Your task to perform on an android device: turn off location history Image 0: 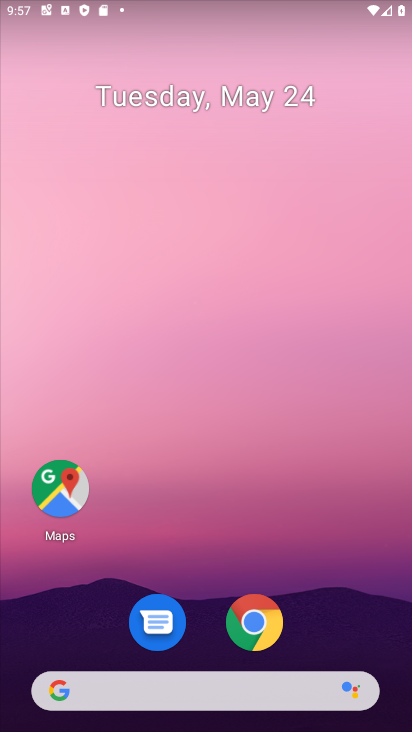
Step 0: drag from (243, 694) to (379, 98)
Your task to perform on an android device: turn off location history Image 1: 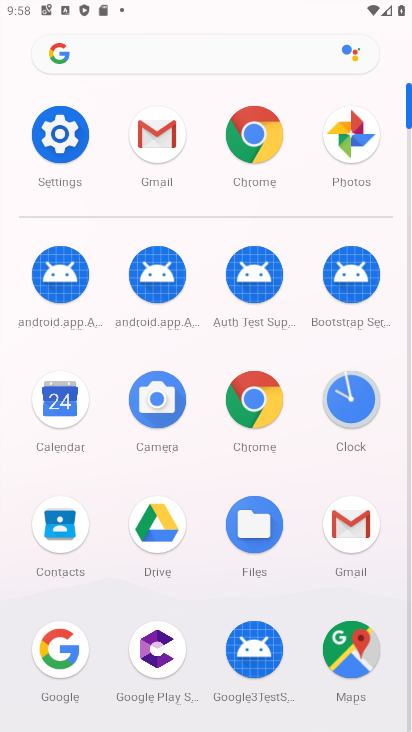
Step 1: click (77, 144)
Your task to perform on an android device: turn off location history Image 2: 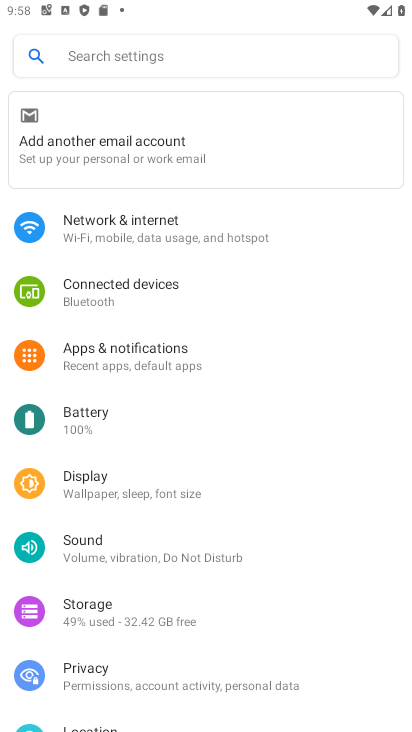
Step 2: click (146, 54)
Your task to perform on an android device: turn off location history Image 3: 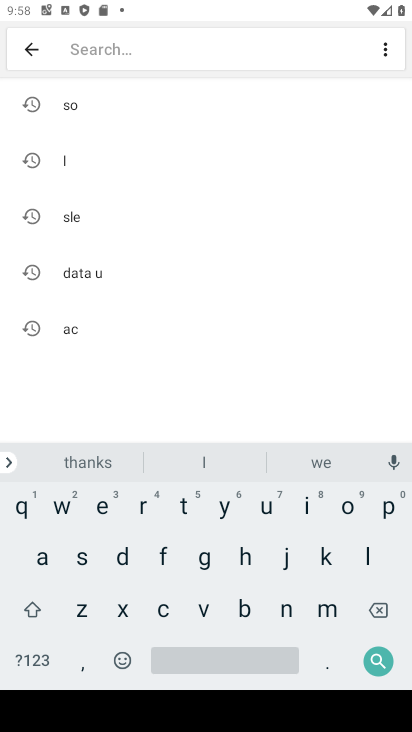
Step 3: click (97, 163)
Your task to perform on an android device: turn off location history Image 4: 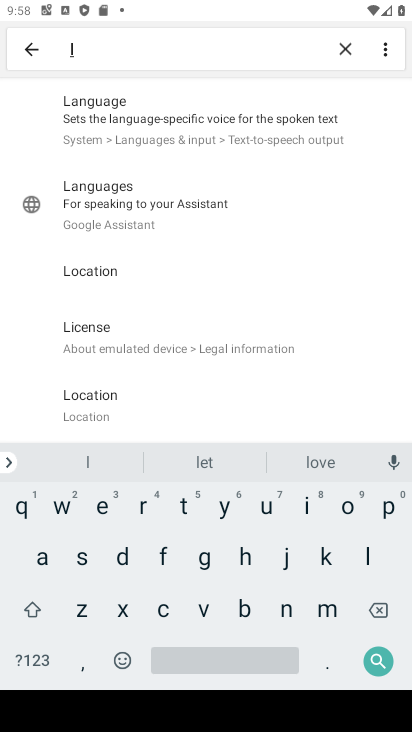
Step 4: click (102, 396)
Your task to perform on an android device: turn off location history Image 5: 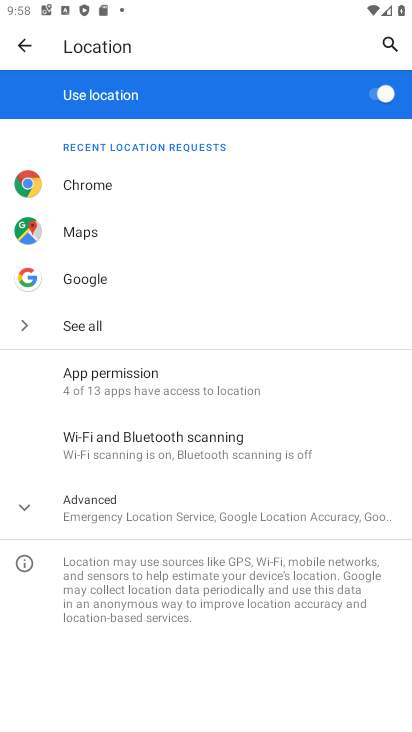
Step 5: click (49, 510)
Your task to perform on an android device: turn off location history Image 6: 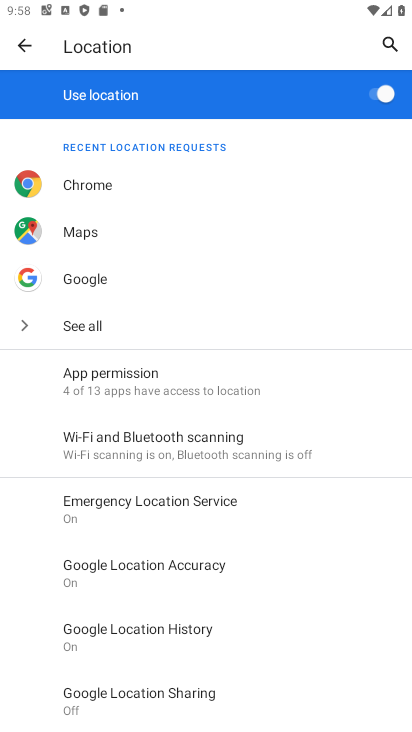
Step 6: click (116, 626)
Your task to perform on an android device: turn off location history Image 7: 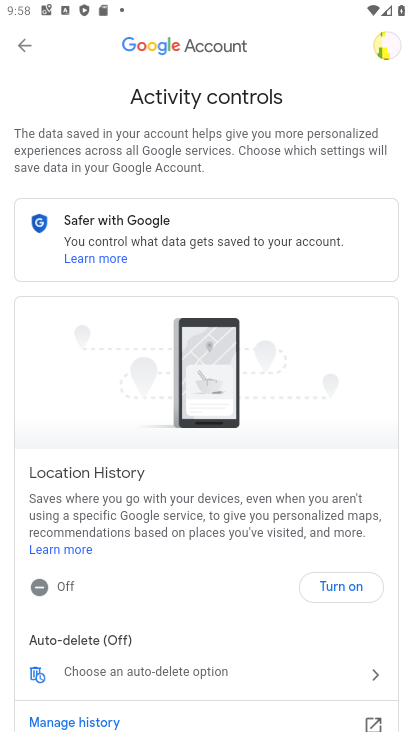
Step 7: task complete